Your task to perform on an android device: check android version Image 0: 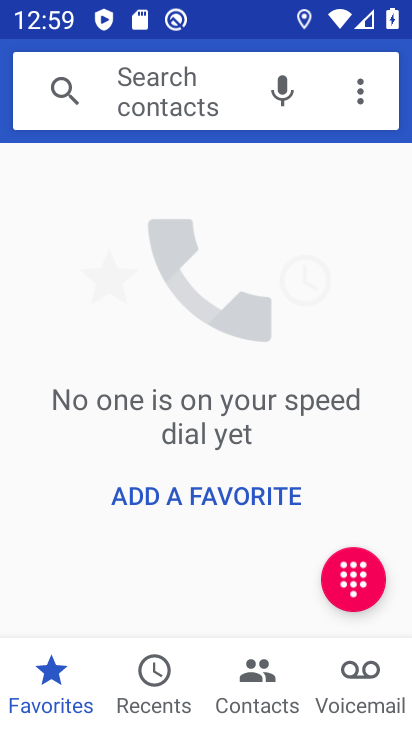
Step 0: press home button
Your task to perform on an android device: check android version Image 1: 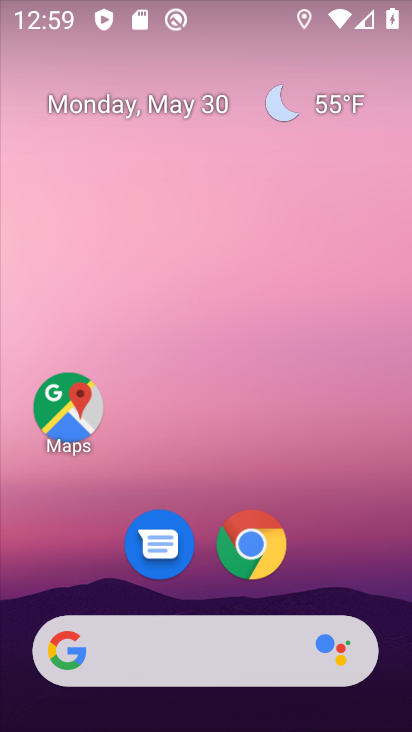
Step 1: drag from (340, 560) to (286, 6)
Your task to perform on an android device: check android version Image 2: 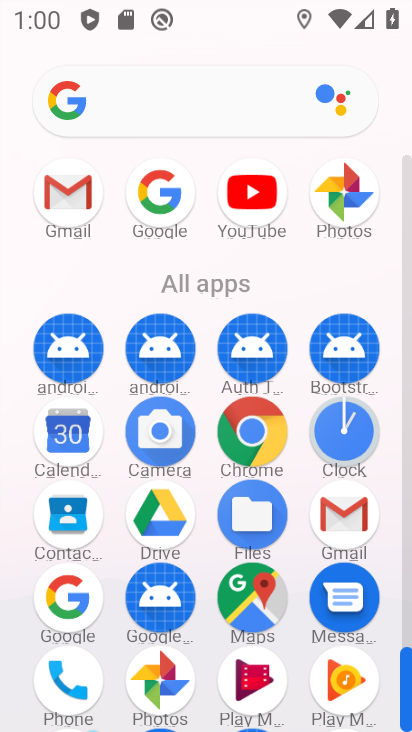
Step 2: drag from (217, 290) to (233, 10)
Your task to perform on an android device: check android version Image 3: 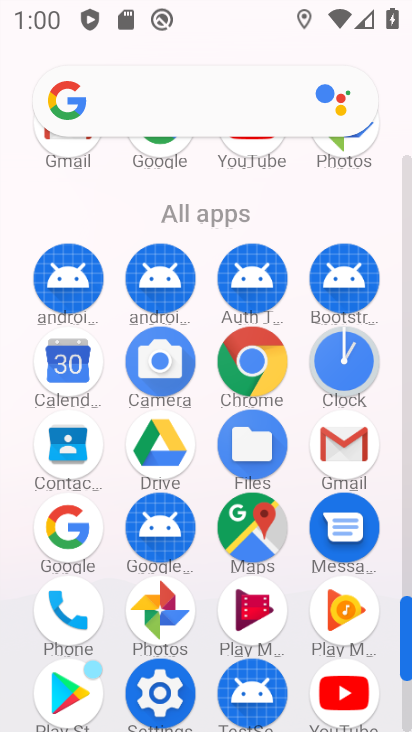
Step 3: click (157, 696)
Your task to perform on an android device: check android version Image 4: 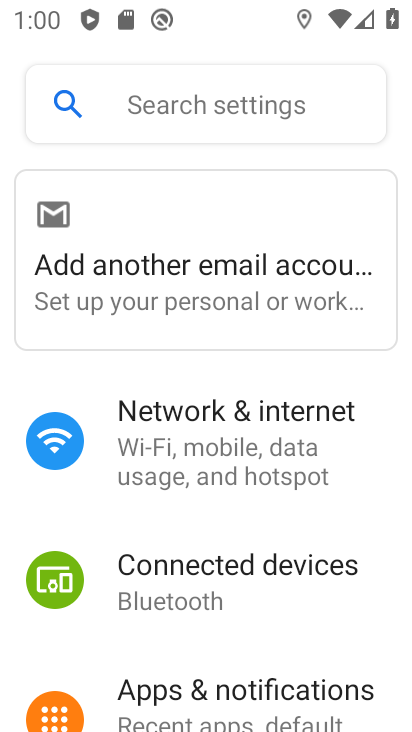
Step 4: drag from (244, 659) to (232, 182)
Your task to perform on an android device: check android version Image 5: 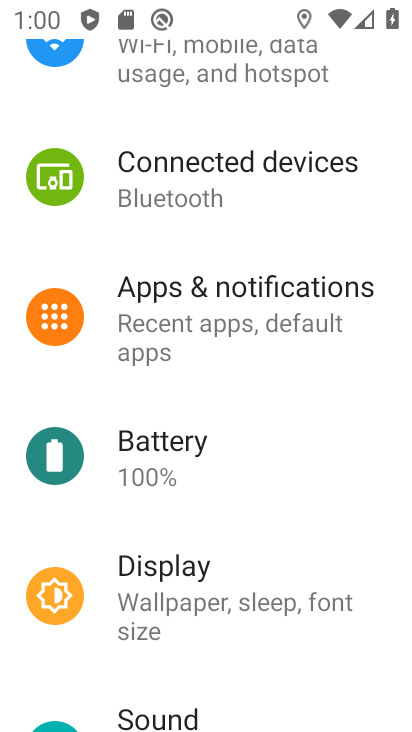
Step 5: drag from (222, 582) to (215, 91)
Your task to perform on an android device: check android version Image 6: 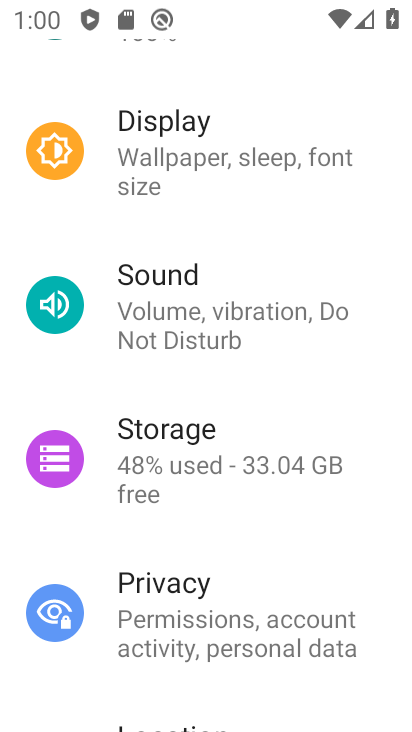
Step 6: drag from (248, 700) to (302, 129)
Your task to perform on an android device: check android version Image 7: 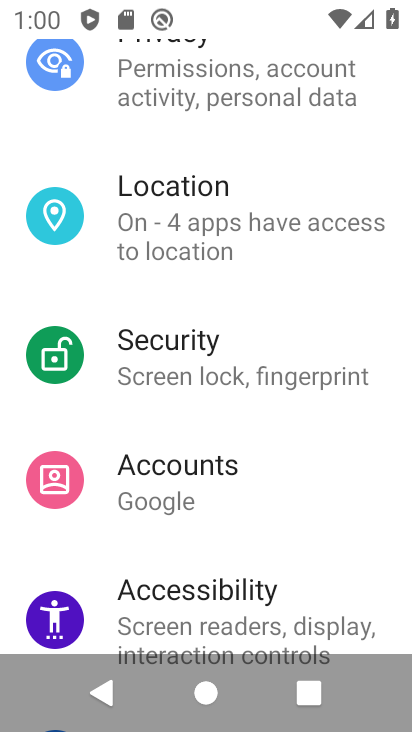
Step 7: drag from (312, 616) to (265, 1)
Your task to perform on an android device: check android version Image 8: 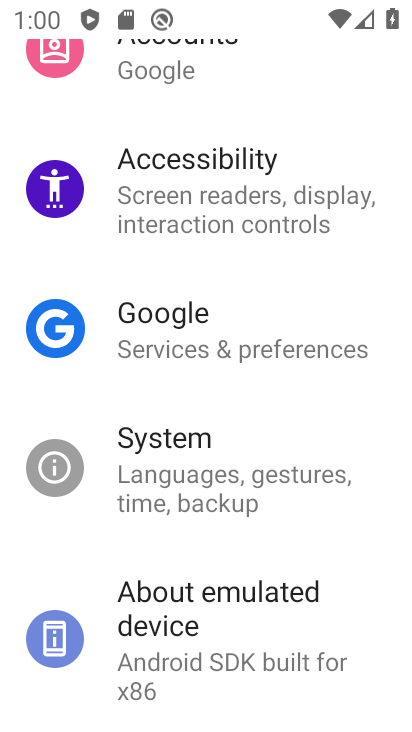
Step 8: drag from (256, 655) to (256, 121)
Your task to perform on an android device: check android version Image 9: 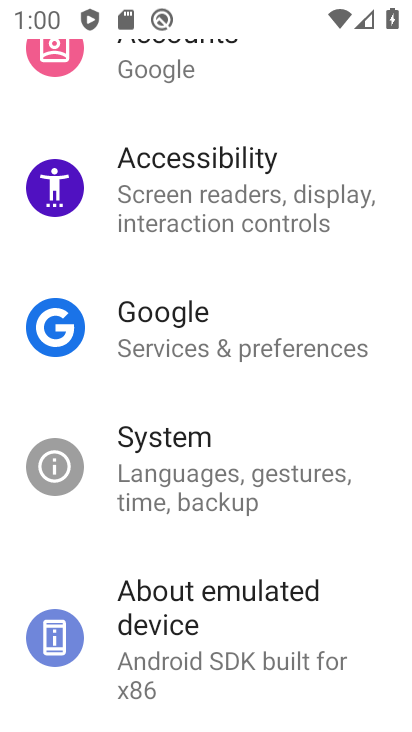
Step 9: click (219, 626)
Your task to perform on an android device: check android version Image 10: 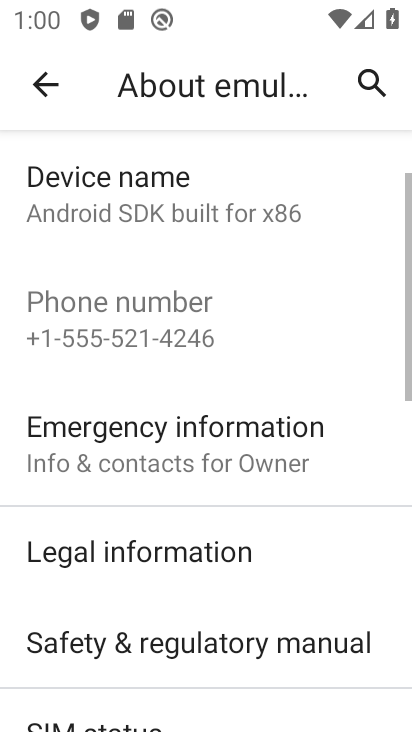
Step 10: drag from (206, 660) to (194, 172)
Your task to perform on an android device: check android version Image 11: 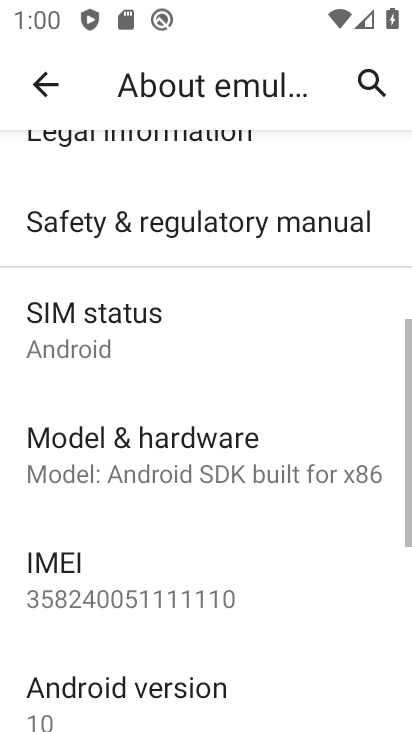
Step 11: click (140, 678)
Your task to perform on an android device: check android version Image 12: 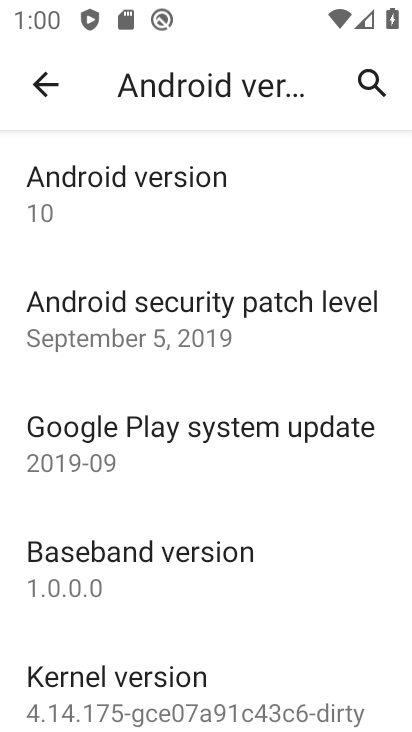
Step 12: task complete